Your task to perform on an android device: toggle notifications settings in the gmail app Image 0: 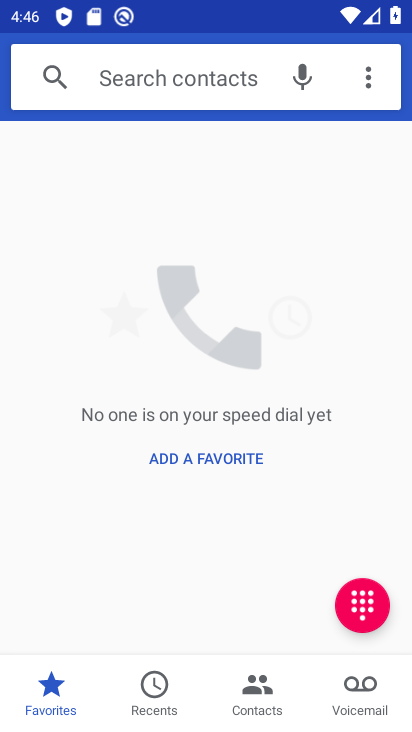
Step 0: press home button
Your task to perform on an android device: toggle notifications settings in the gmail app Image 1: 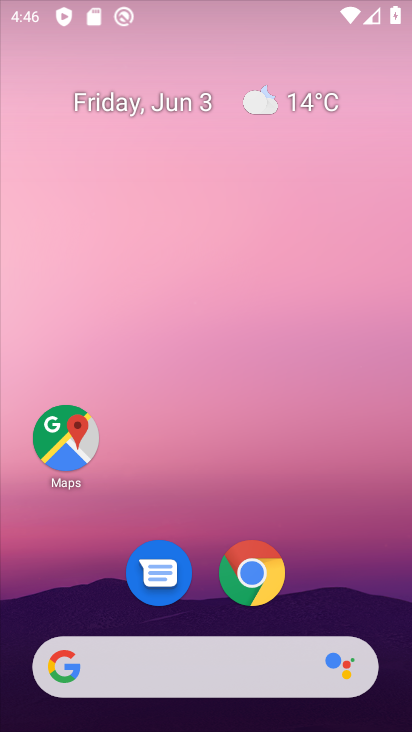
Step 1: drag from (341, 591) to (257, 125)
Your task to perform on an android device: toggle notifications settings in the gmail app Image 2: 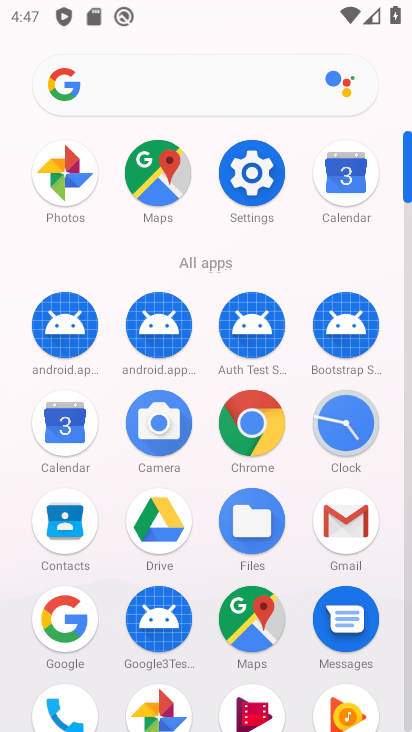
Step 2: click (344, 513)
Your task to perform on an android device: toggle notifications settings in the gmail app Image 3: 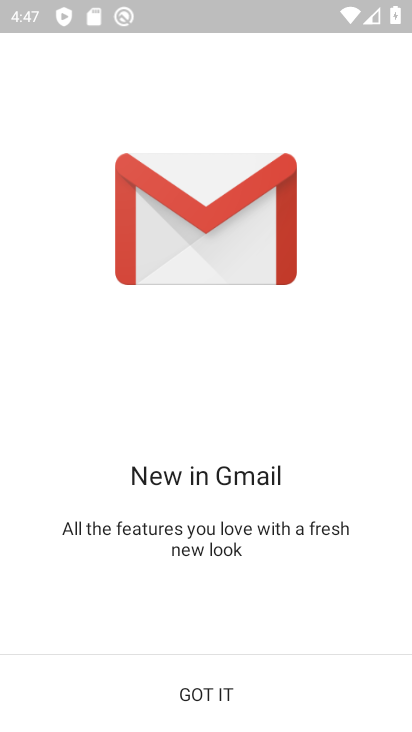
Step 3: click (259, 683)
Your task to perform on an android device: toggle notifications settings in the gmail app Image 4: 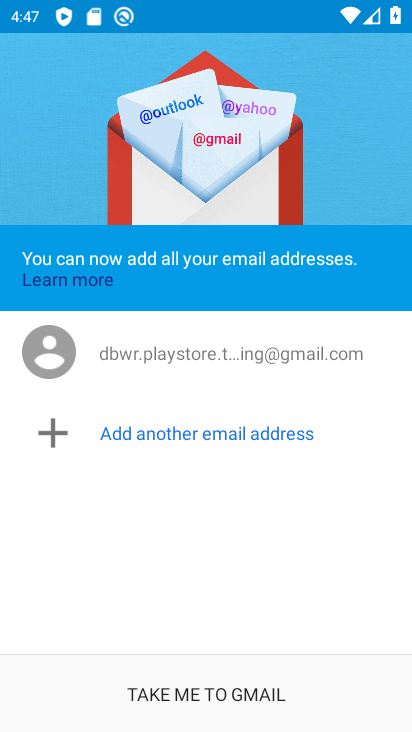
Step 4: click (214, 689)
Your task to perform on an android device: toggle notifications settings in the gmail app Image 5: 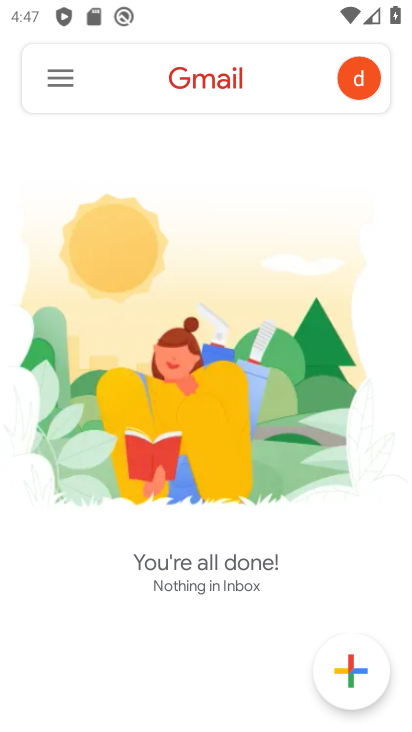
Step 5: click (64, 66)
Your task to perform on an android device: toggle notifications settings in the gmail app Image 6: 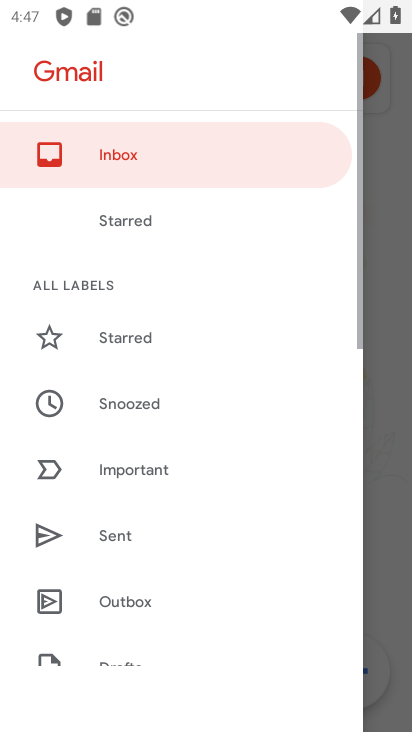
Step 6: drag from (177, 587) to (222, 118)
Your task to perform on an android device: toggle notifications settings in the gmail app Image 7: 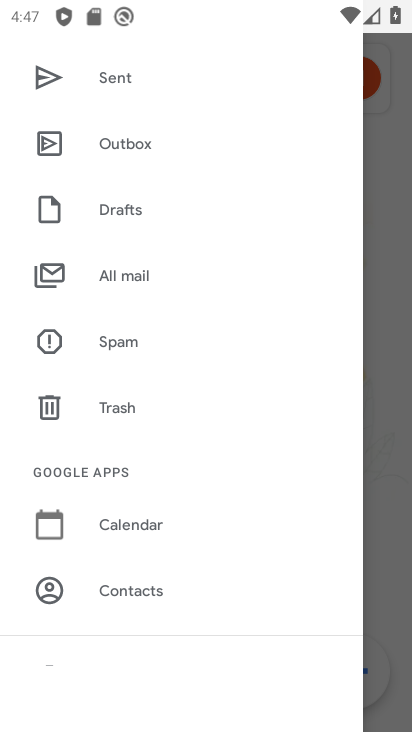
Step 7: drag from (135, 568) to (172, 233)
Your task to perform on an android device: toggle notifications settings in the gmail app Image 8: 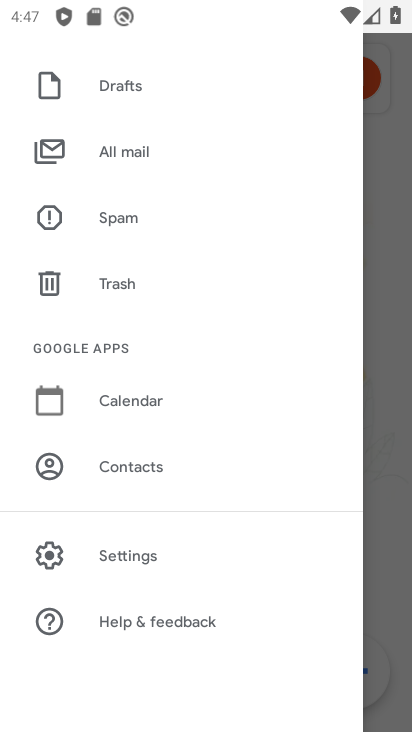
Step 8: click (113, 558)
Your task to perform on an android device: toggle notifications settings in the gmail app Image 9: 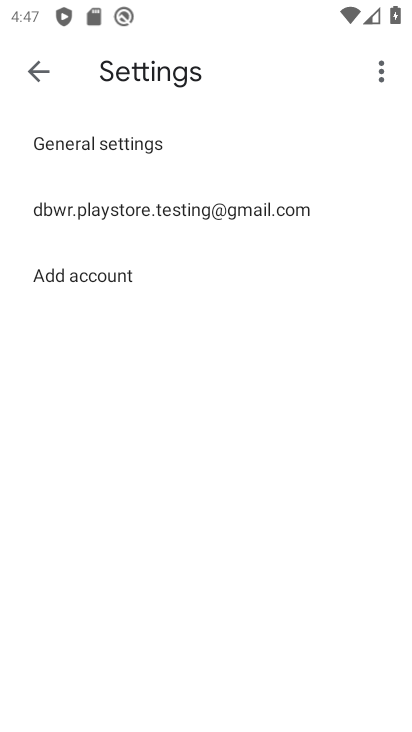
Step 9: click (177, 194)
Your task to perform on an android device: toggle notifications settings in the gmail app Image 10: 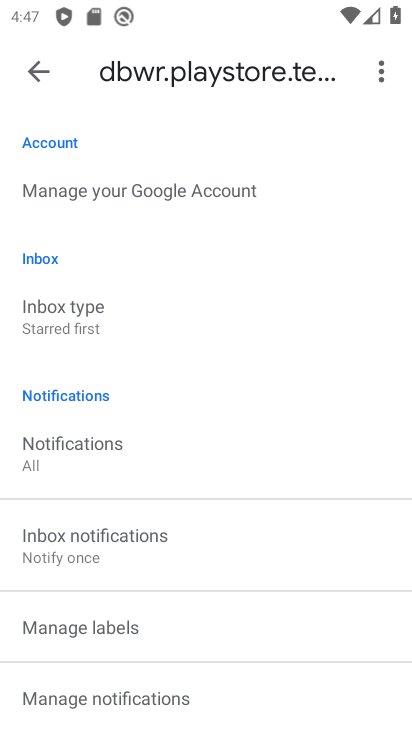
Step 10: click (158, 699)
Your task to perform on an android device: toggle notifications settings in the gmail app Image 11: 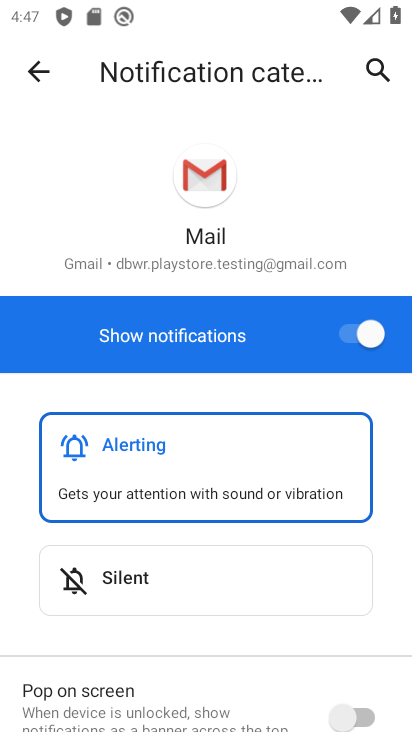
Step 11: click (347, 334)
Your task to perform on an android device: toggle notifications settings in the gmail app Image 12: 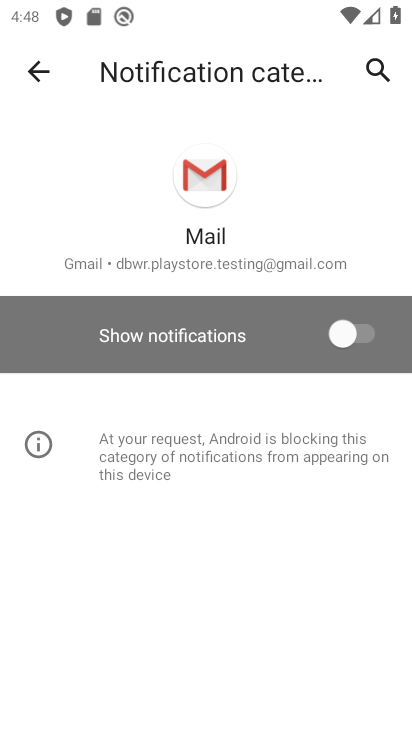
Step 12: task complete